Your task to perform on an android device: check data usage Image 0: 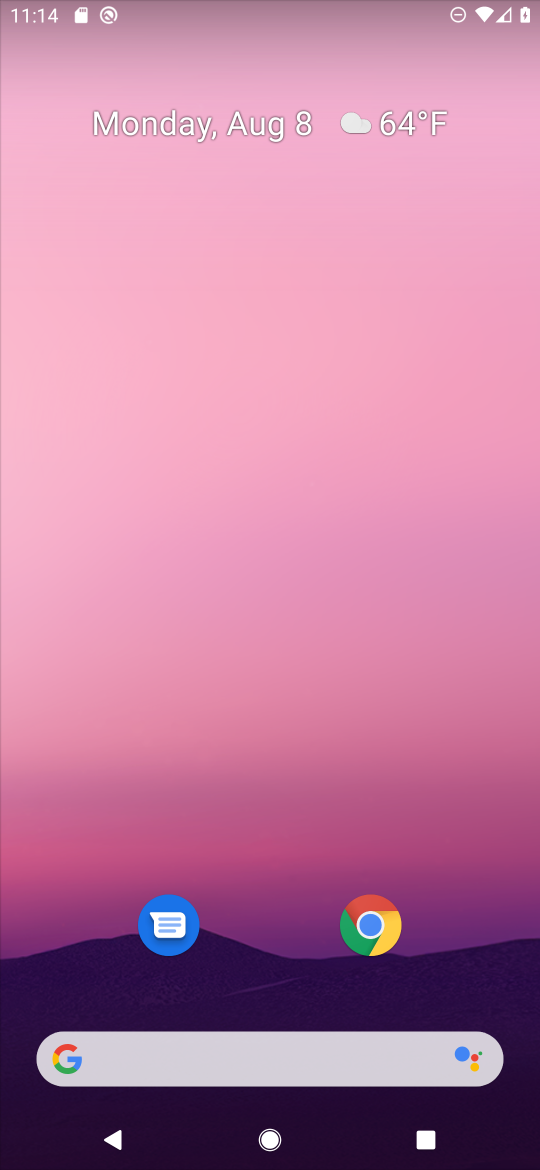
Step 0: drag from (278, 716) to (287, 194)
Your task to perform on an android device: check data usage Image 1: 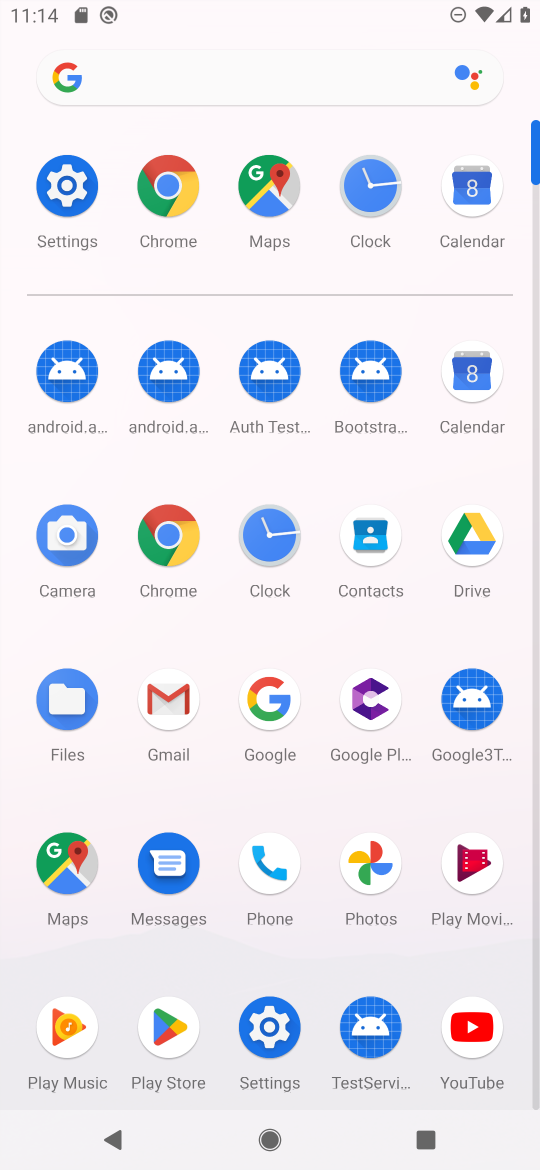
Step 1: click (255, 1020)
Your task to perform on an android device: check data usage Image 2: 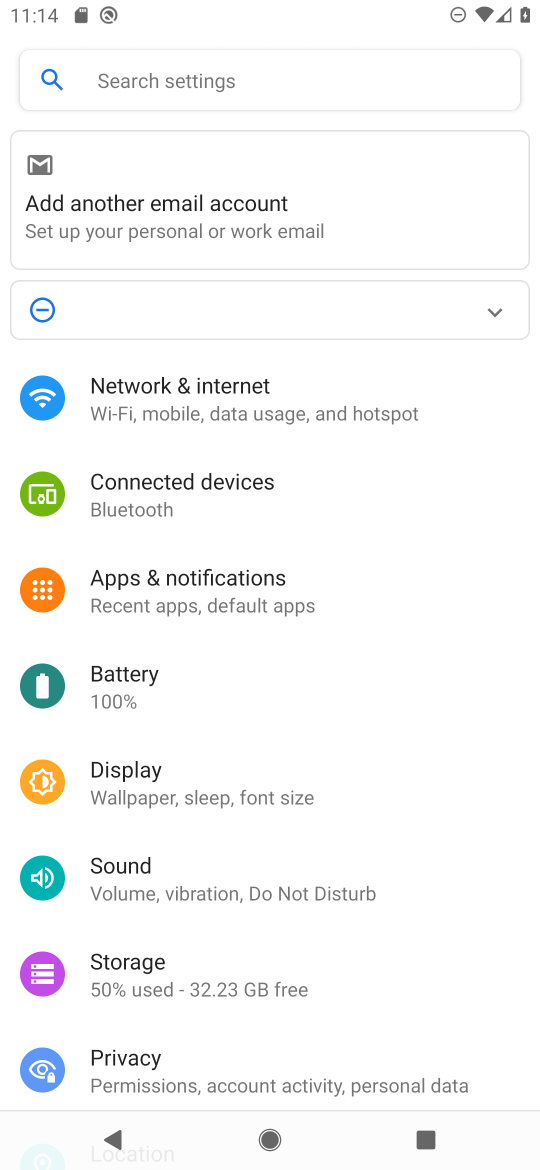
Step 2: click (230, 427)
Your task to perform on an android device: check data usage Image 3: 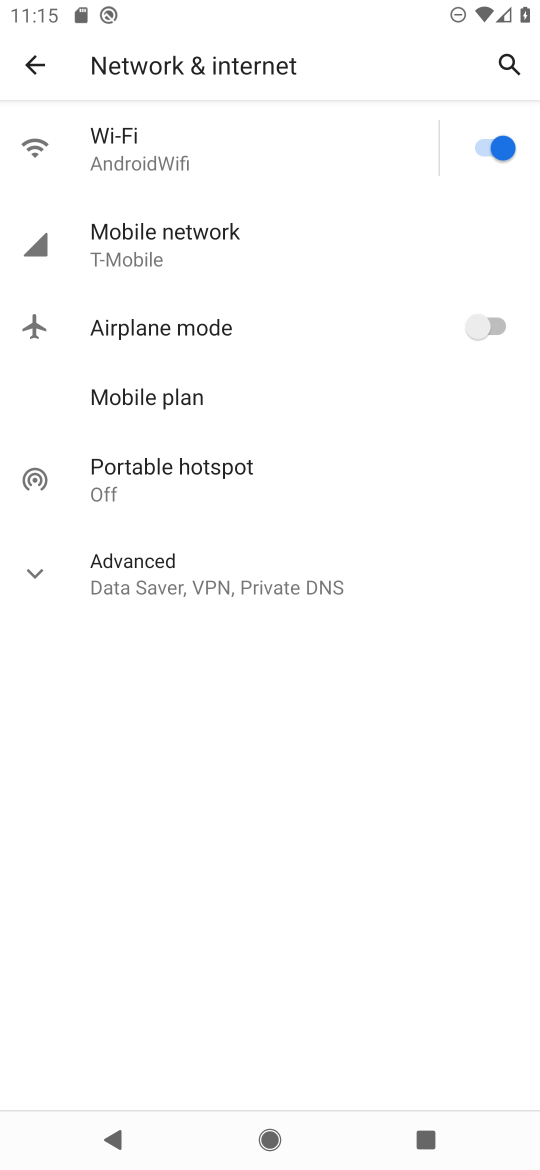
Step 3: click (262, 237)
Your task to perform on an android device: check data usage Image 4: 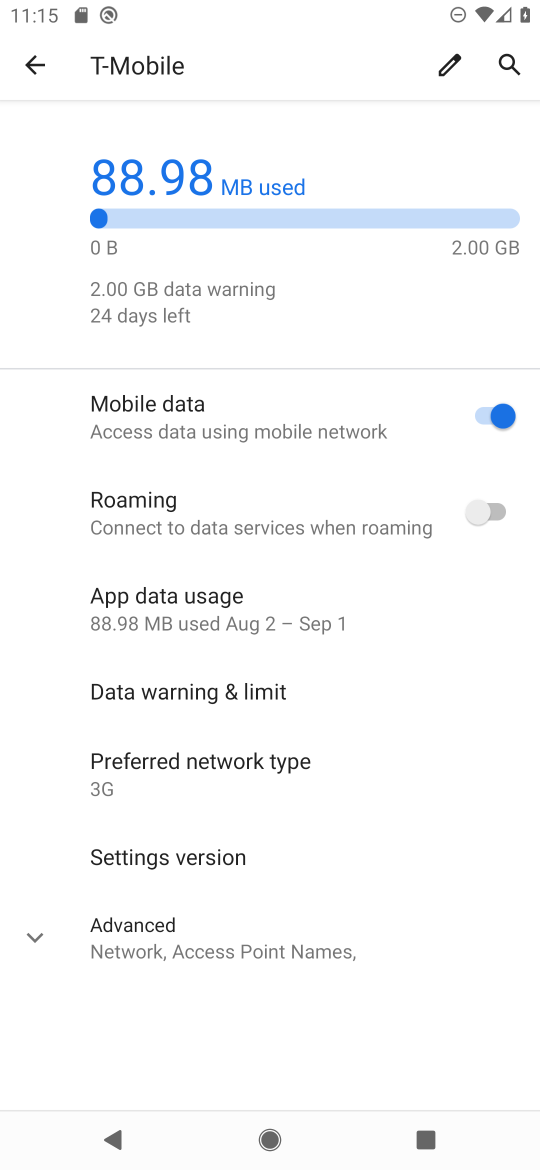
Step 4: task complete